Your task to perform on an android device: Open Wikipedia Image 0: 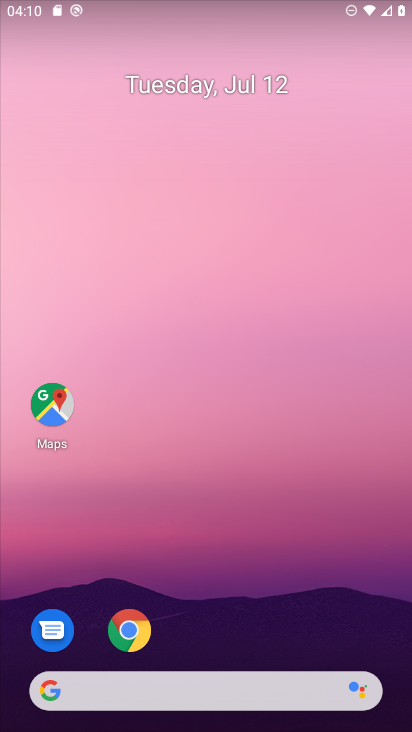
Step 0: click (124, 632)
Your task to perform on an android device: Open Wikipedia Image 1: 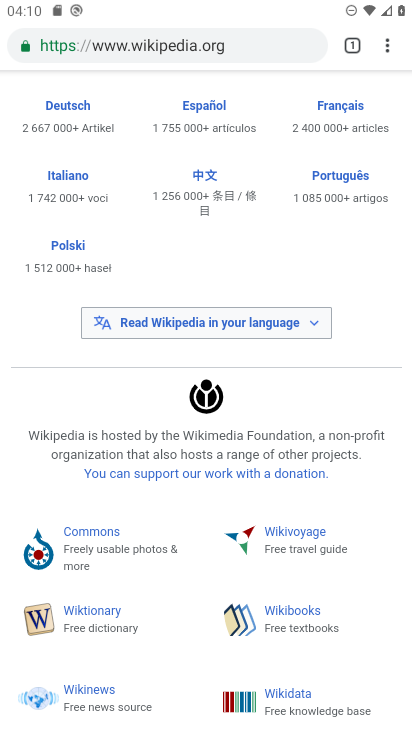
Step 1: task complete